Your task to perform on an android device: Open the calendar and show me this week's events? Image 0: 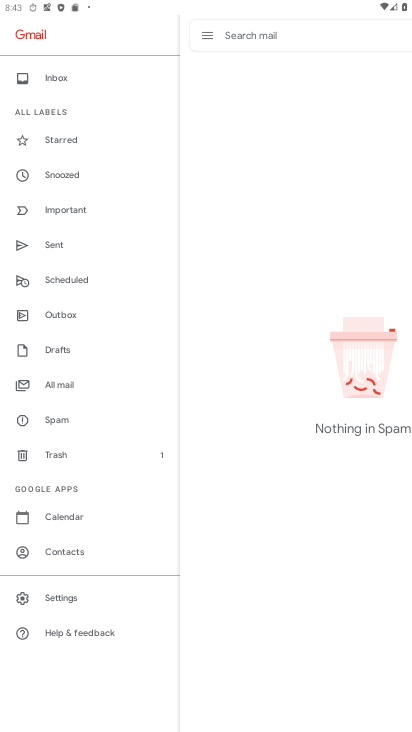
Step 0: press home button
Your task to perform on an android device: Open the calendar and show me this week's events? Image 1: 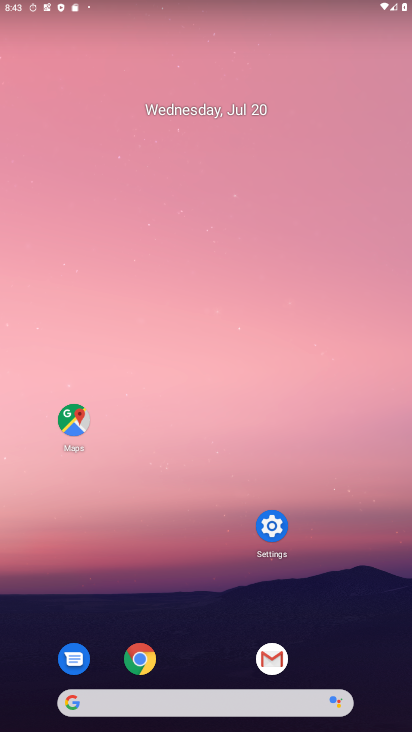
Step 1: drag from (228, 715) to (229, 299)
Your task to perform on an android device: Open the calendar and show me this week's events? Image 2: 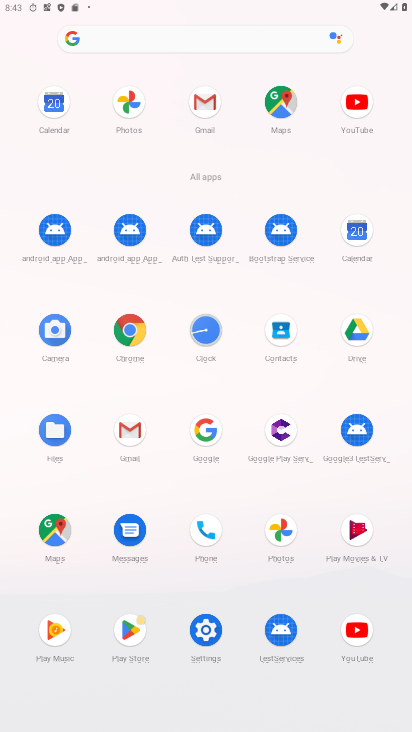
Step 2: click (369, 238)
Your task to perform on an android device: Open the calendar and show me this week's events? Image 3: 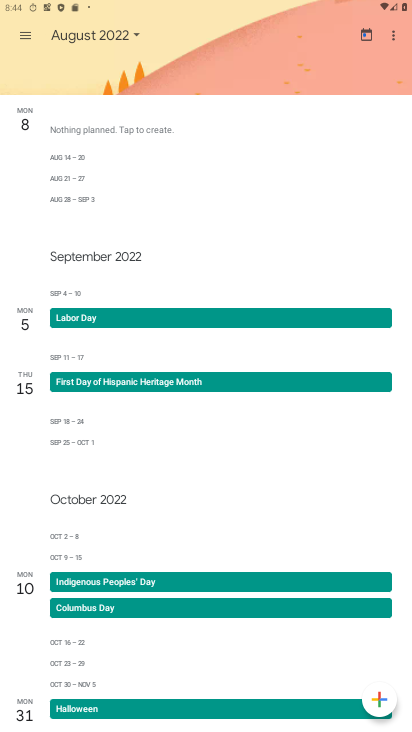
Step 3: click (24, 41)
Your task to perform on an android device: Open the calendar and show me this week's events? Image 4: 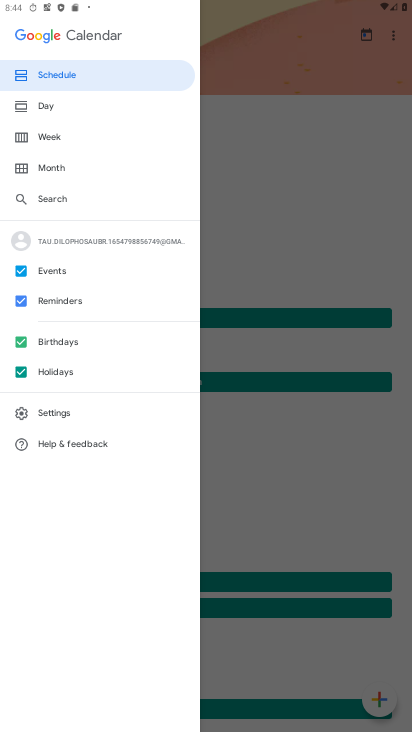
Step 4: click (65, 166)
Your task to perform on an android device: Open the calendar and show me this week's events? Image 5: 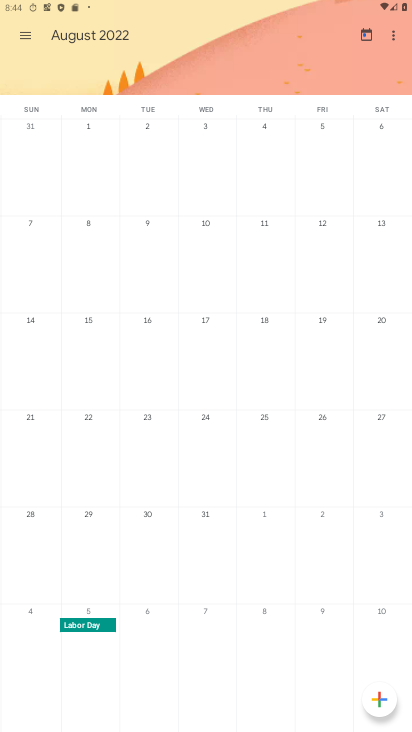
Step 5: drag from (39, 291) to (409, 146)
Your task to perform on an android device: Open the calendar and show me this week's events? Image 6: 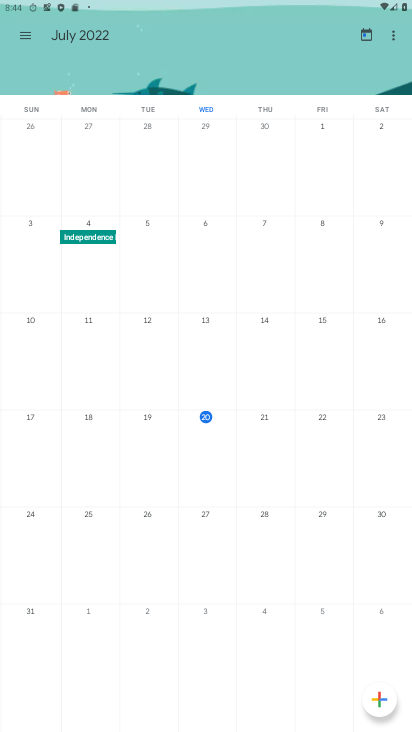
Step 6: click (205, 427)
Your task to perform on an android device: Open the calendar and show me this week's events? Image 7: 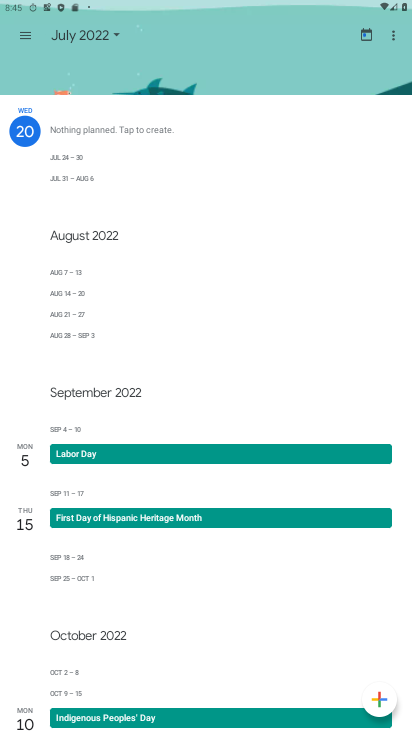
Step 7: task complete